Your task to perform on an android device: Open Maps and search for coffee Image 0: 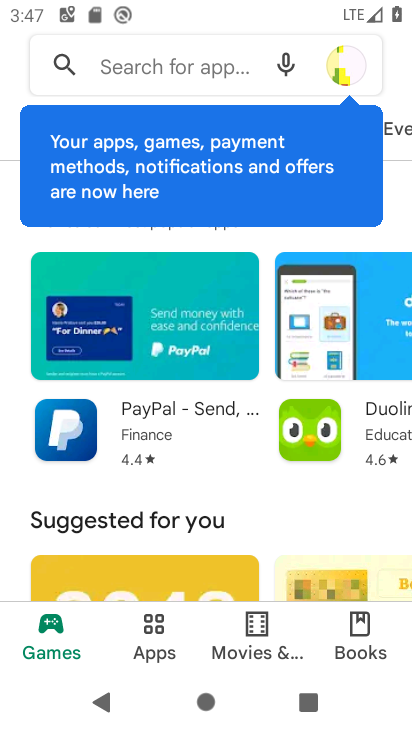
Step 0: press home button
Your task to perform on an android device: Open Maps and search for coffee Image 1: 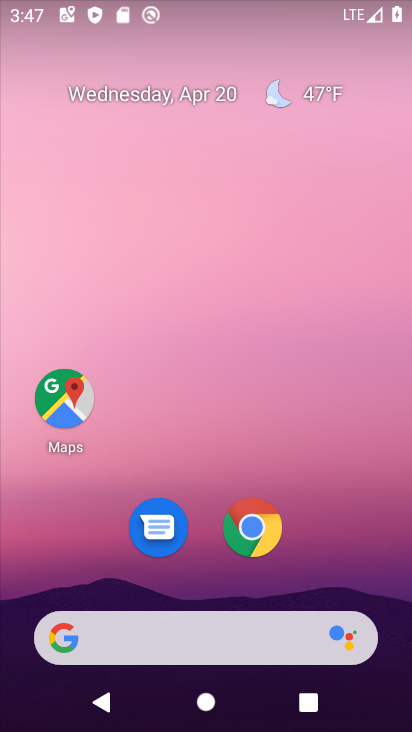
Step 1: click (74, 403)
Your task to perform on an android device: Open Maps and search for coffee Image 2: 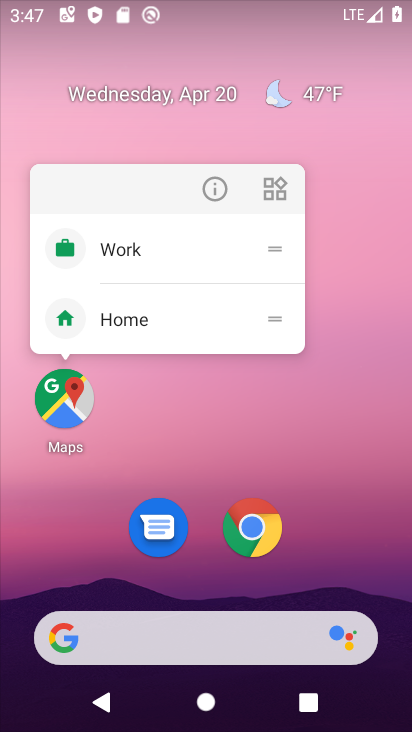
Step 2: click (65, 411)
Your task to perform on an android device: Open Maps and search for coffee Image 3: 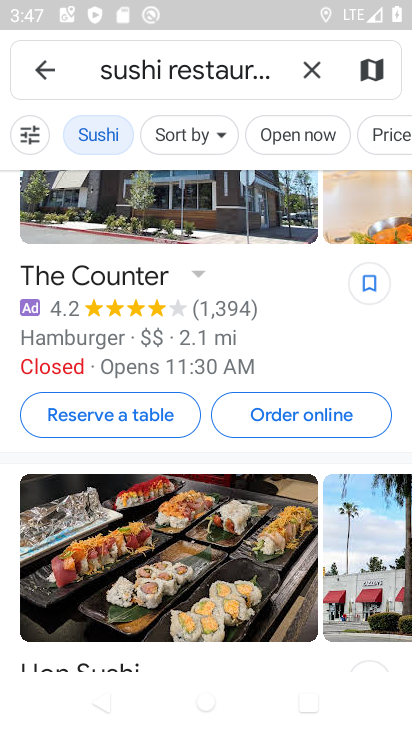
Step 3: click (308, 72)
Your task to perform on an android device: Open Maps and search for coffee Image 4: 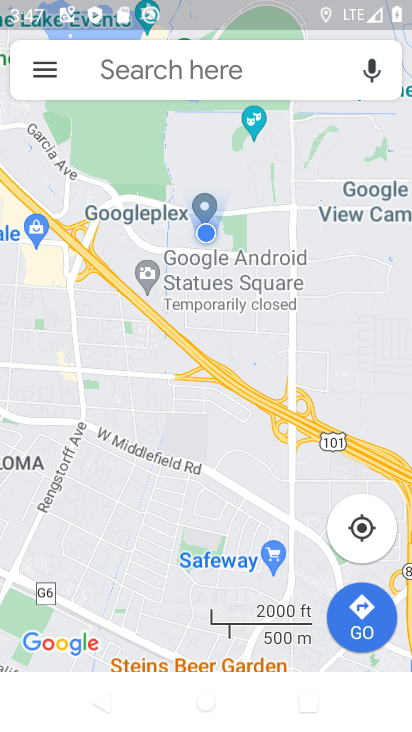
Step 4: click (190, 77)
Your task to perform on an android device: Open Maps and search for coffee Image 5: 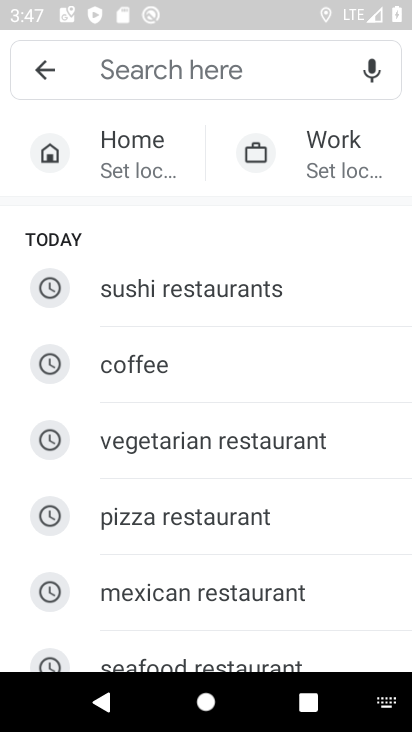
Step 5: click (94, 371)
Your task to perform on an android device: Open Maps and search for coffee Image 6: 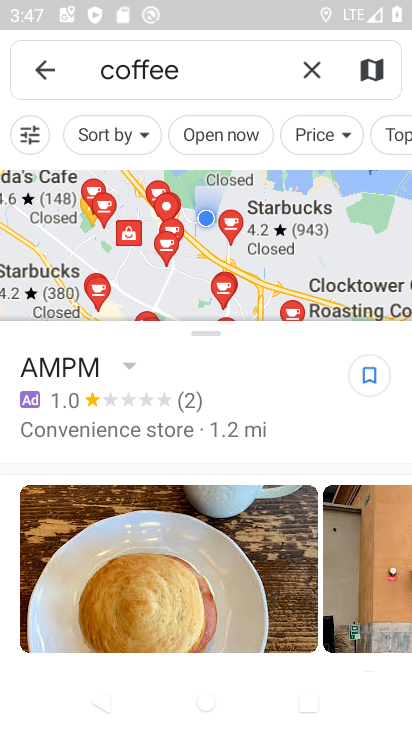
Step 6: task complete